Your task to perform on an android device: What's the weather going to be this weekend? Image 0: 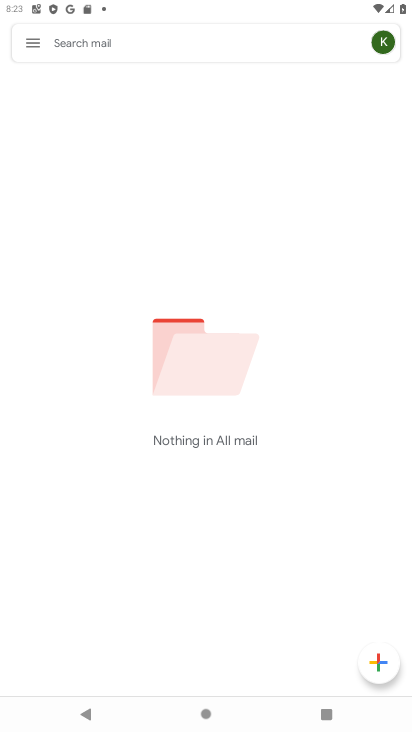
Step 0: press home button
Your task to perform on an android device: What's the weather going to be this weekend? Image 1: 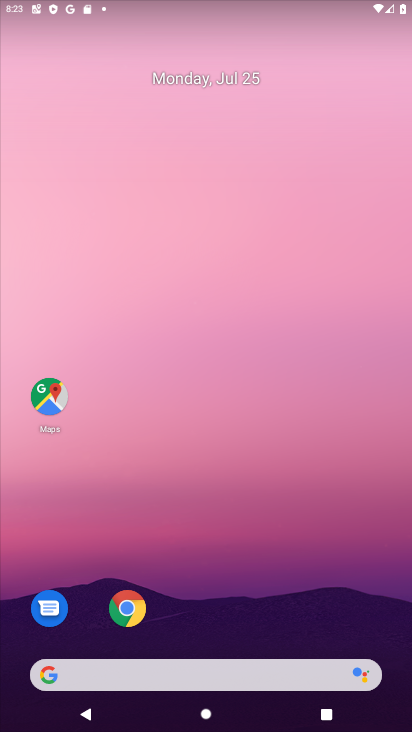
Step 1: drag from (273, 624) to (268, 298)
Your task to perform on an android device: What's the weather going to be this weekend? Image 2: 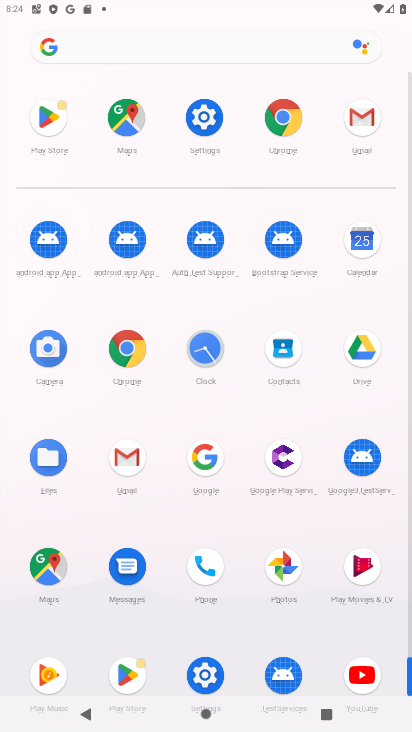
Step 2: click (204, 470)
Your task to perform on an android device: What's the weather going to be this weekend? Image 3: 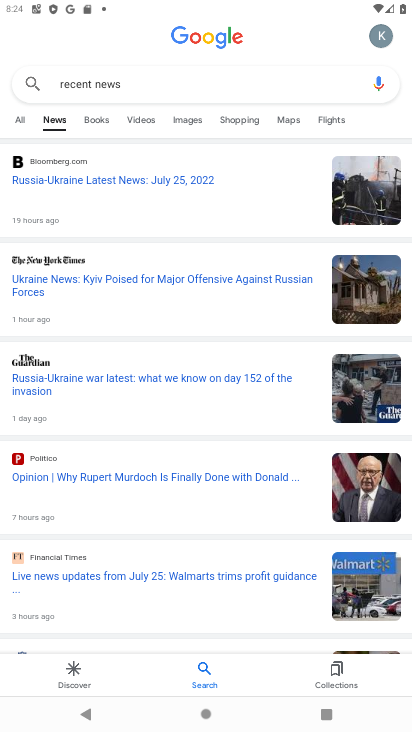
Step 3: click (279, 84)
Your task to perform on an android device: What's the weather going to be this weekend? Image 4: 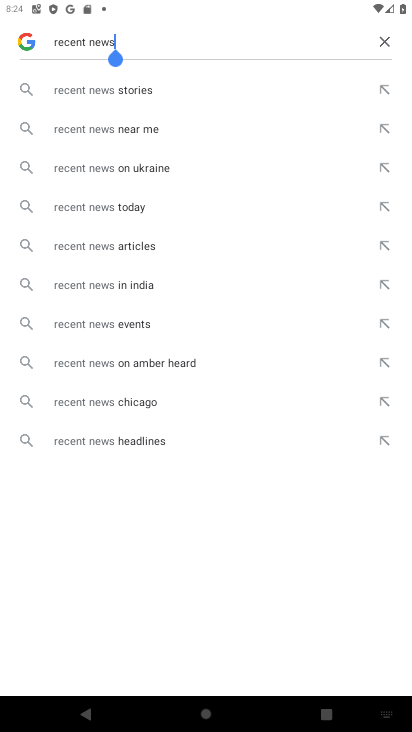
Step 4: click (388, 41)
Your task to perform on an android device: What's the weather going to be this weekend? Image 5: 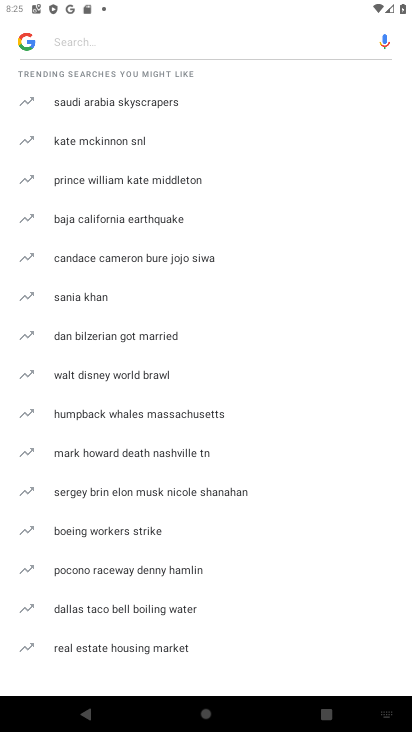
Step 5: type "weather"
Your task to perform on an android device: What's the weather going to be this weekend? Image 6: 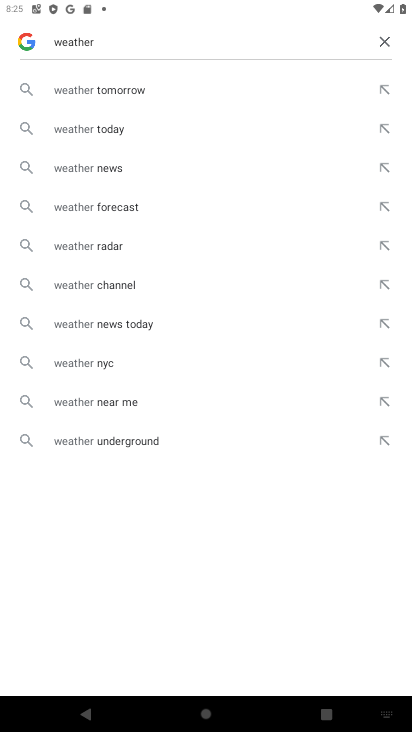
Step 6: click (112, 125)
Your task to perform on an android device: What's the weather going to be this weekend? Image 7: 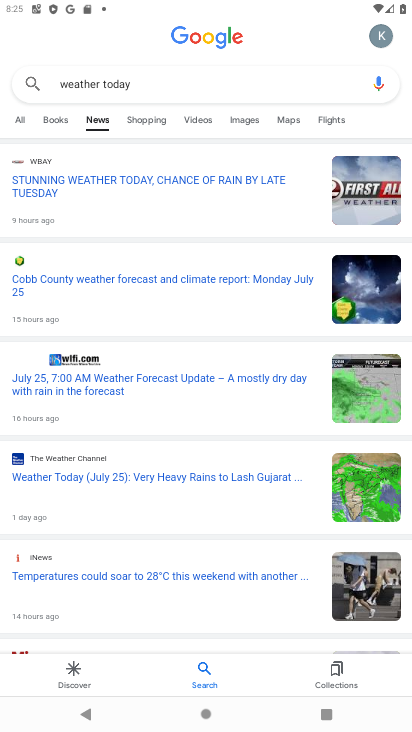
Step 7: click (17, 119)
Your task to perform on an android device: What's the weather going to be this weekend? Image 8: 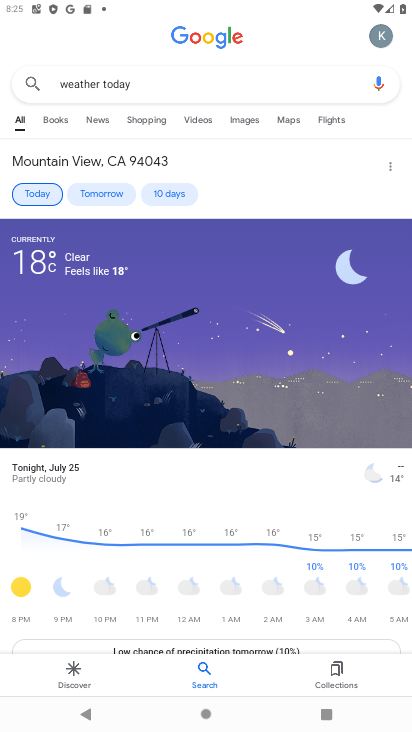
Step 8: click (166, 196)
Your task to perform on an android device: What's the weather going to be this weekend? Image 9: 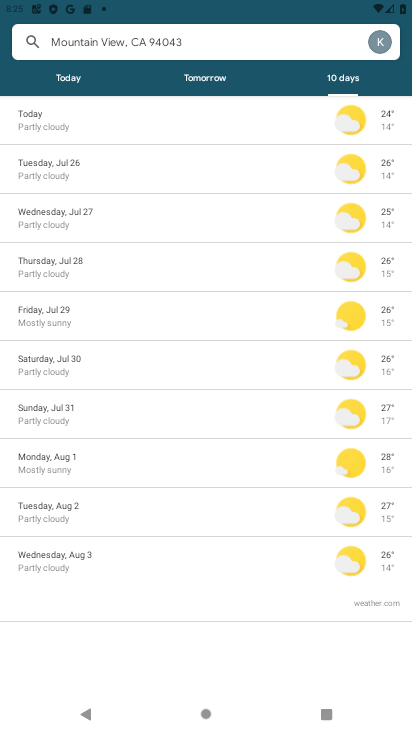
Step 9: task complete